Your task to perform on an android device: turn off notifications in google photos Image 0: 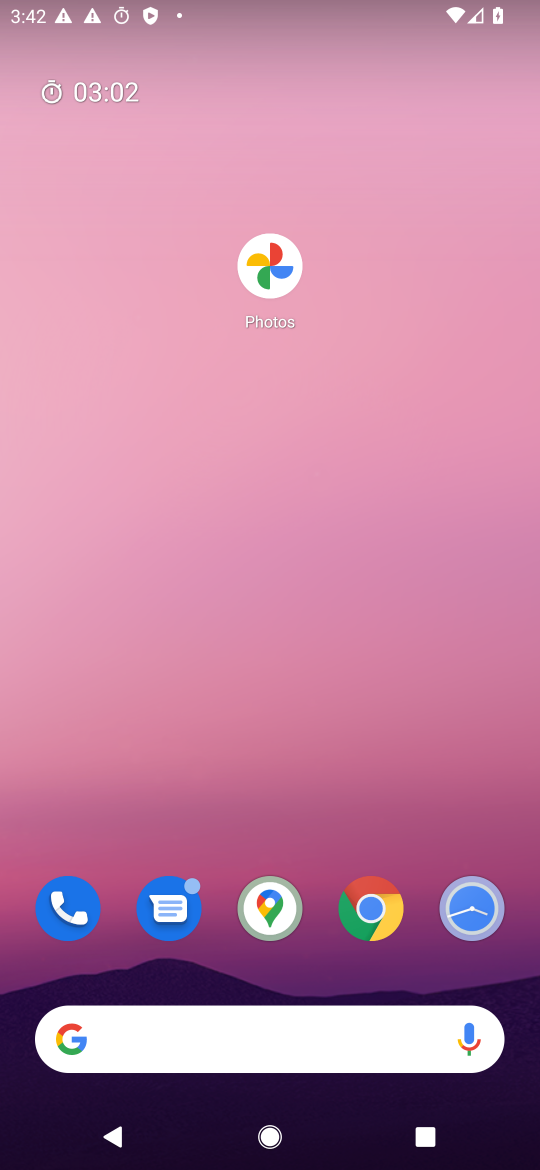
Step 0: drag from (282, 988) to (311, 11)
Your task to perform on an android device: turn off notifications in google photos Image 1: 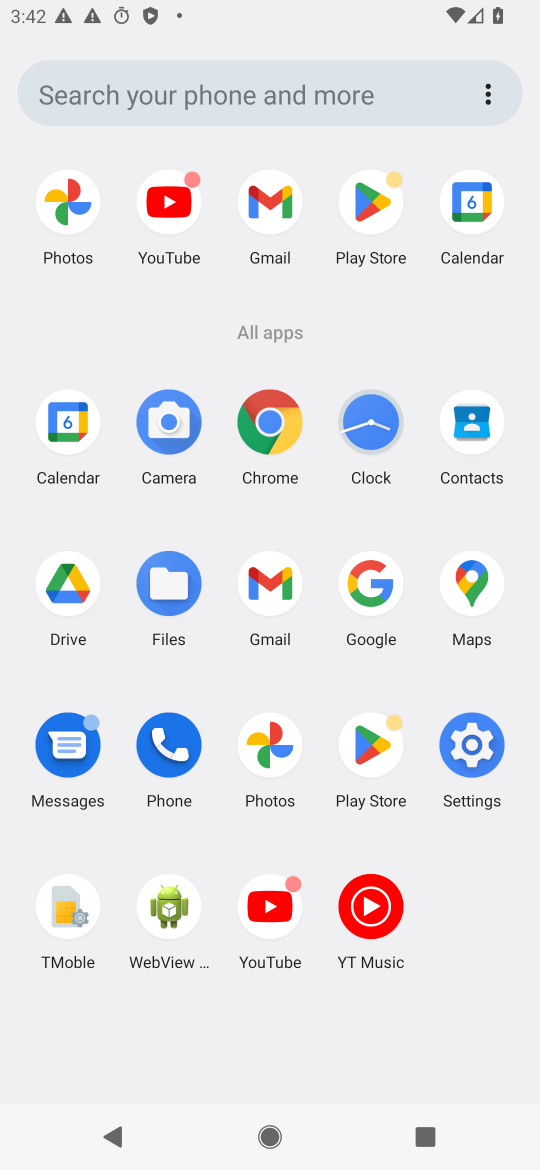
Step 1: click (277, 768)
Your task to perform on an android device: turn off notifications in google photos Image 2: 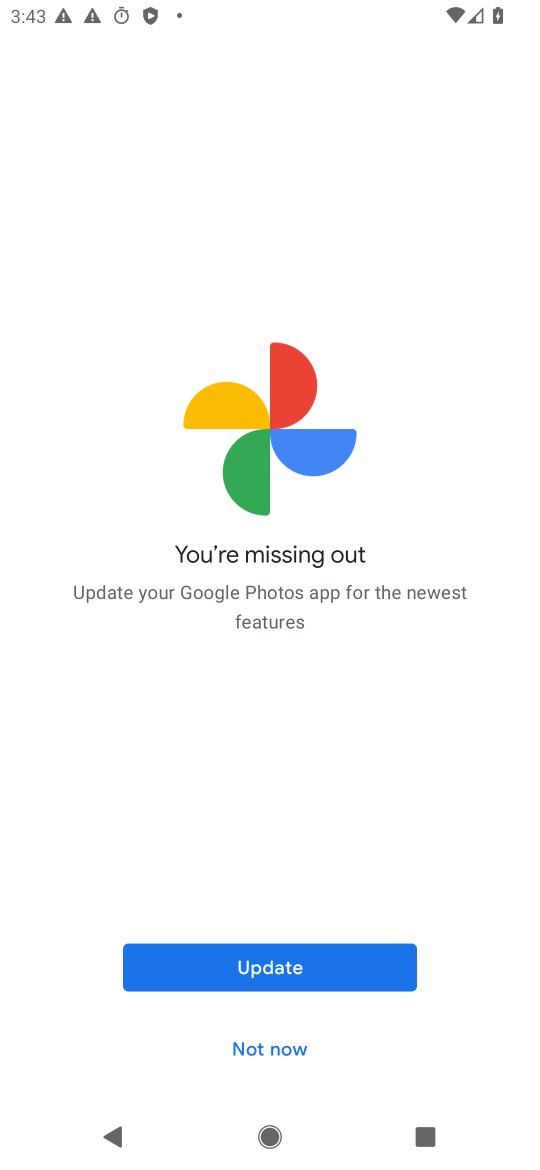
Step 2: click (271, 1059)
Your task to perform on an android device: turn off notifications in google photos Image 3: 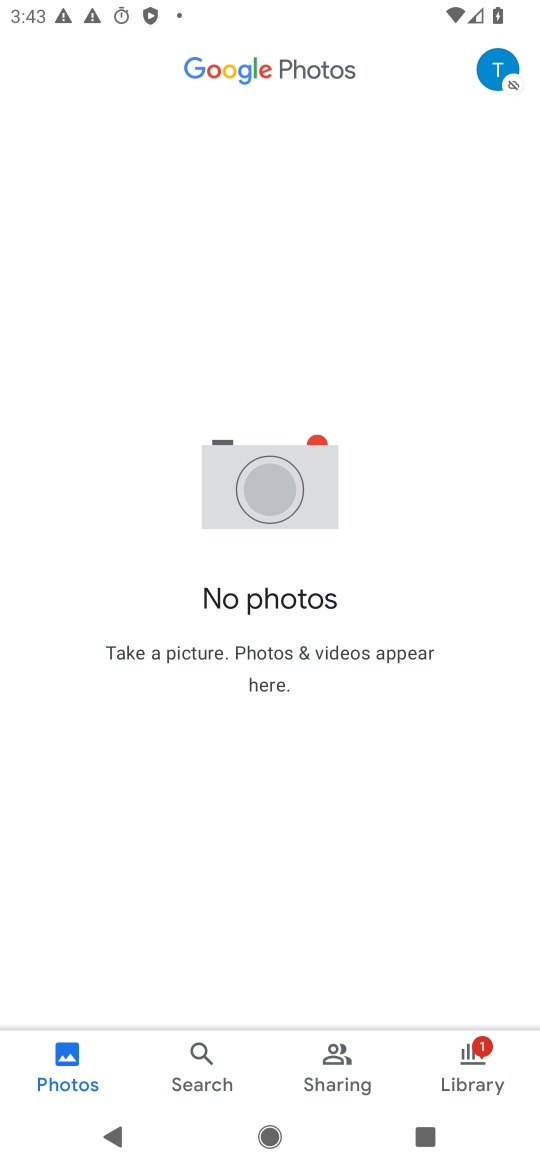
Step 3: click (496, 63)
Your task to perform on an android device: turn off notifications in google photos Image 4: 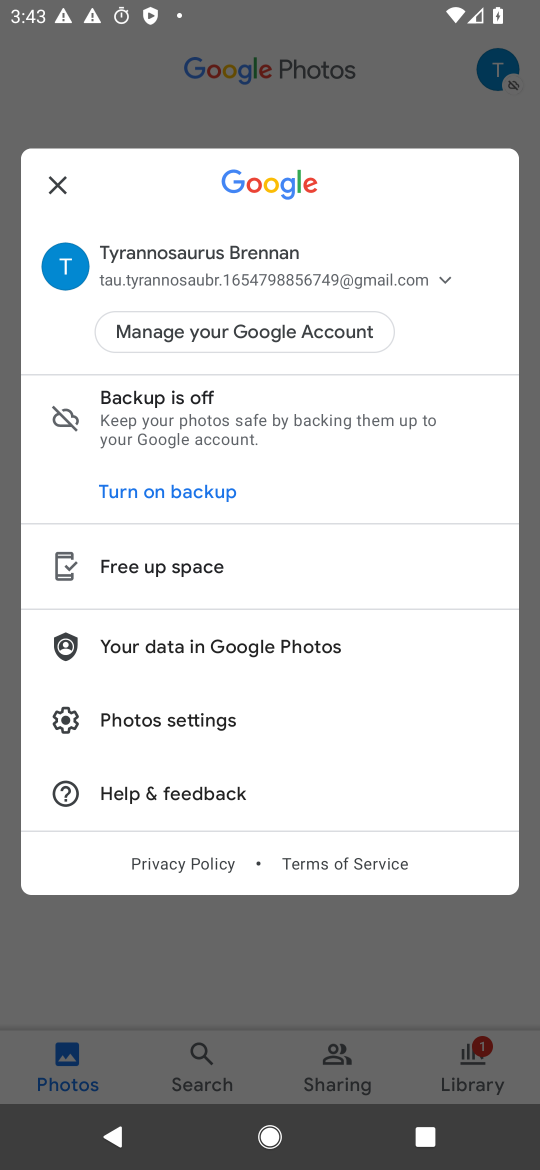
Step 4: click (202, 721)
Your task to perform on an android device: turn off notifications in google photos Image 5: 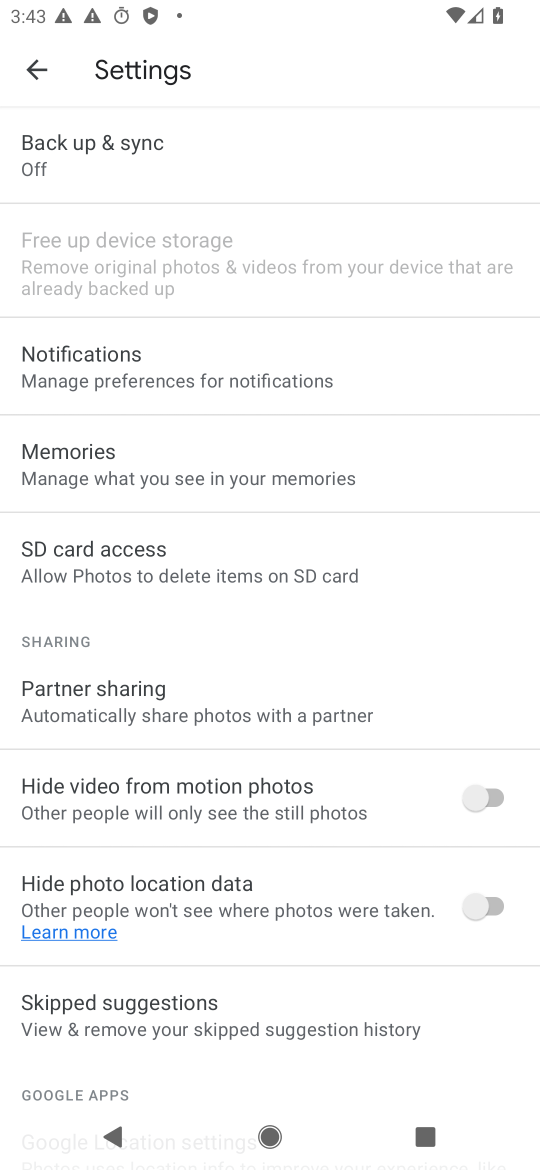
Step 5: click (207, 388)
Your task to perform on an android device: turn off notifications in google photos Image 6: 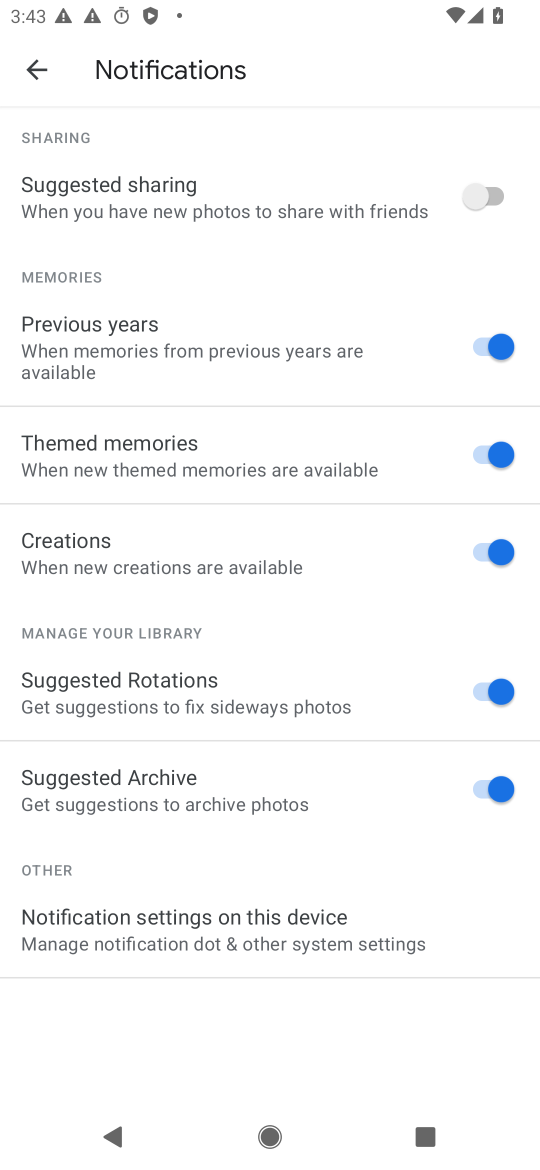
Step 6: click (177, 937)
Your task to perform on an android device: turn off notifications in google photos Image 7: 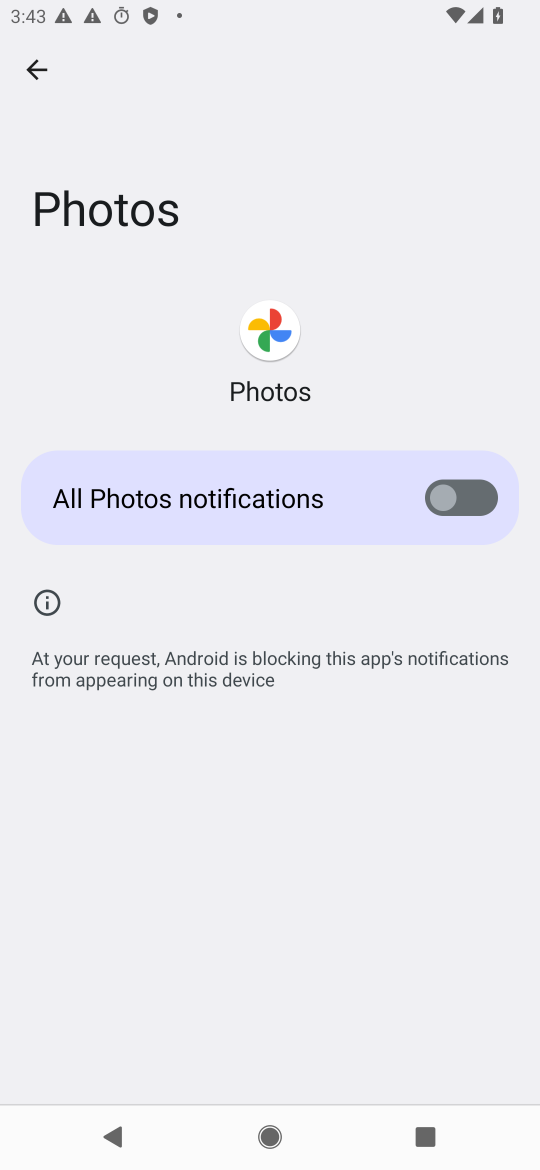
Step 7: task complete